Your task to perform on an android device: star an email in the gmail app Image 0: 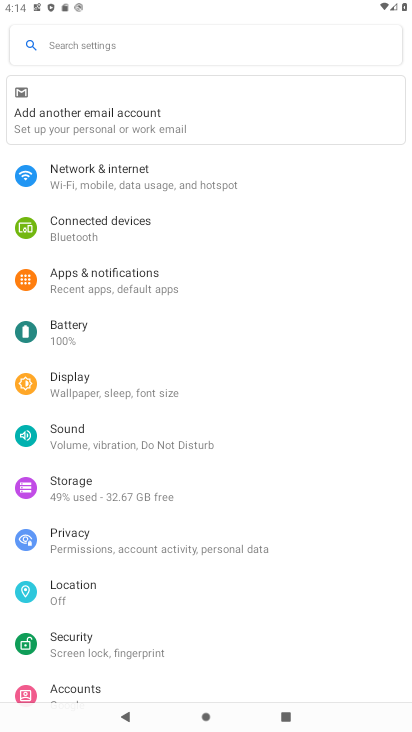
Step 0: press home button
Your task to perform on an android device: star an email in the gmail app Image 1: 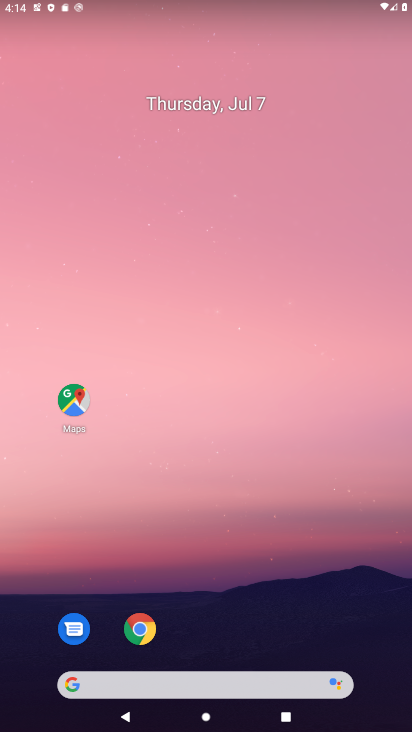
Step 1: drag from (240, 629) to (235, 215)
Your task to perform on an android device: star an email in the gmail app Image 2: 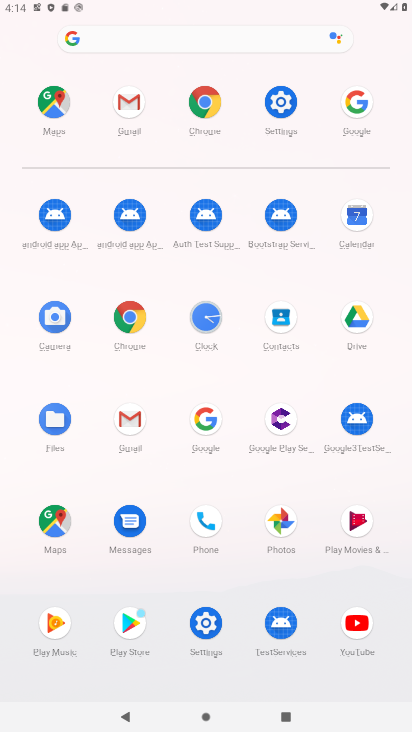
Step 2: click (132, 107)
Your task to perform on an android device: star an email in the gmail app Image 3: 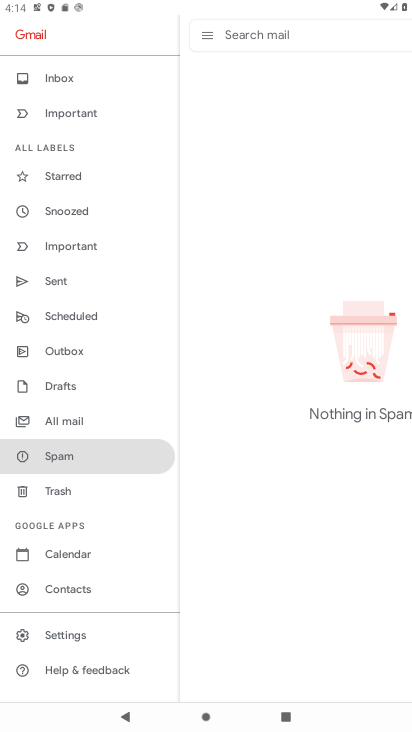
Step 3: click (84, 415)
Your task to perform on an android device: star an email in the gmail app Image 4: 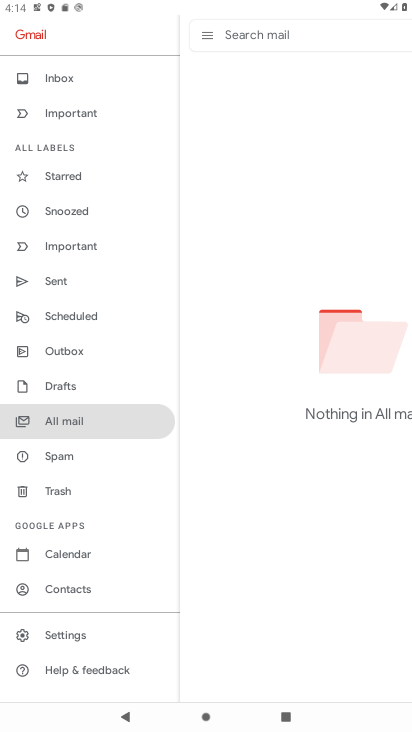
Step 4: task complete